Your task to perform on an android device: Open Yahoo.com Image 0: 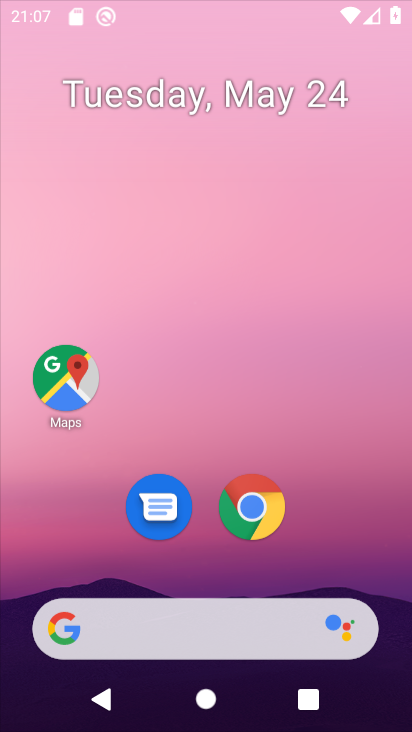
Step 0: drag from (200, 575) to (249, 47)
Your task to perform on an android device: Open Yahoo.com Image 1: 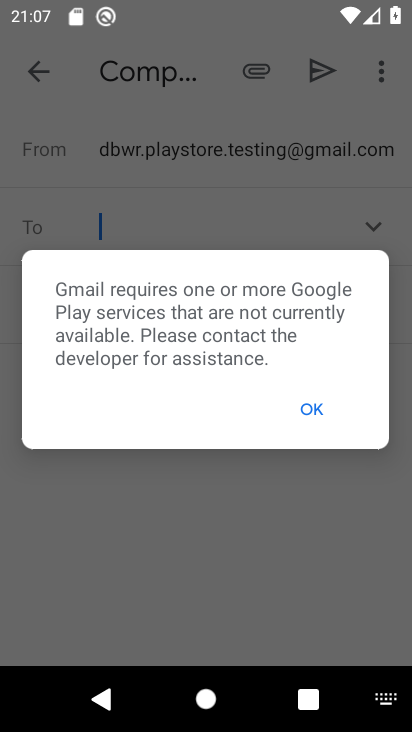
Step 1: press home button
Your task to perform on an android device: Open Yahoo.com Image 2: 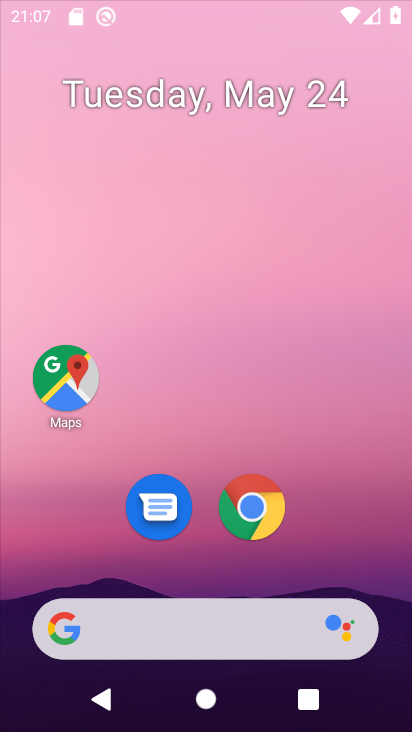
Step 2: drag from (214, 517) to (308, 23)
Your task to perform on an android device: Open Yahoo.com Image 3: 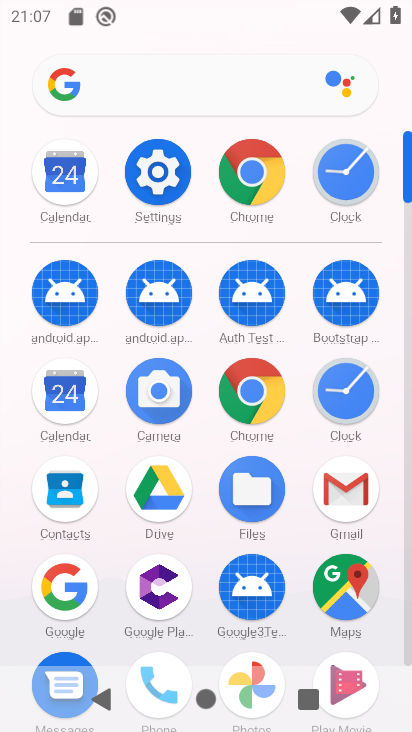
Step 3: click (170, 86)
Your task to perform on an android device: Open Yahoo.com Image 4: 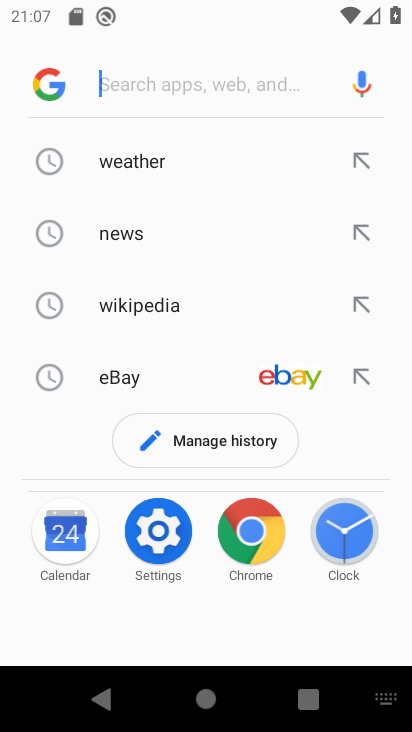
Step 4: type "yahoo.com"
Your task to perform on an android device: Open Yahoo.com Image 5: 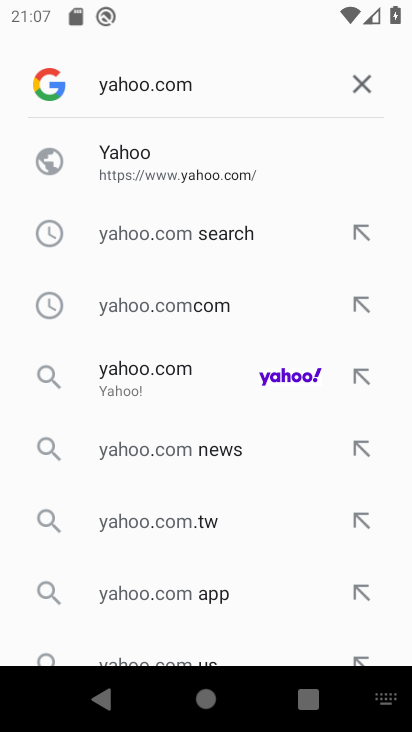
Step 5: click (209, 365)
Your task to perform on an android device: Open Yahoo.com Image 6: 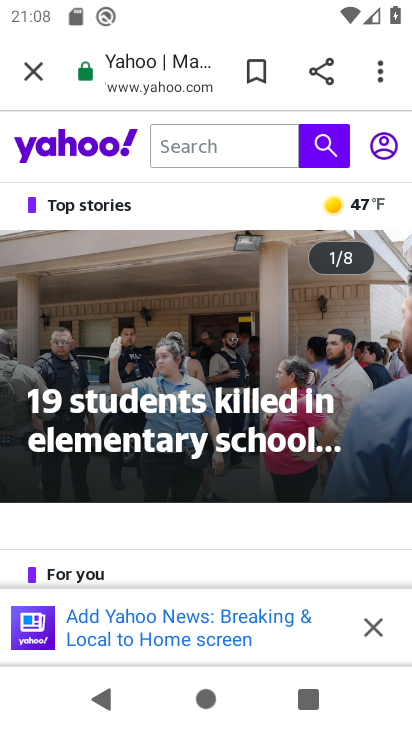
Step 6: task complete